Your task to perform on an android device: check storage Image 0: 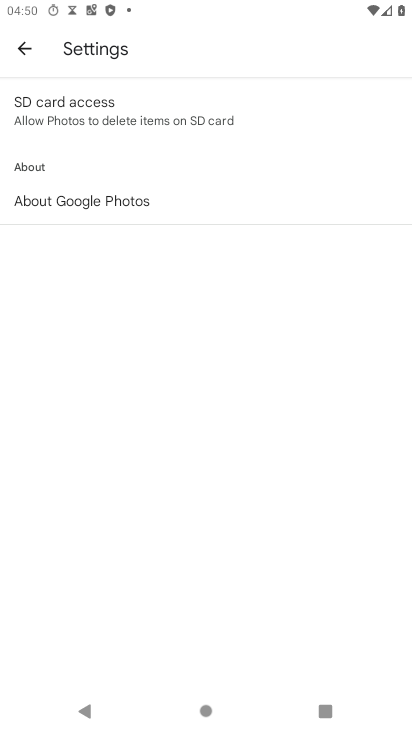
Step 0: press home button
Your task to perform on an android device: check storage Image 1: 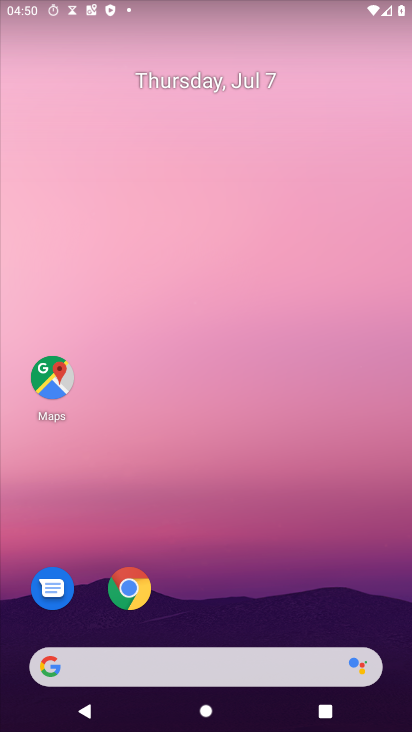
Step 1: drag from (237, 632) to (188, 194)
Your task to perform on an android device: check storage Image 2: 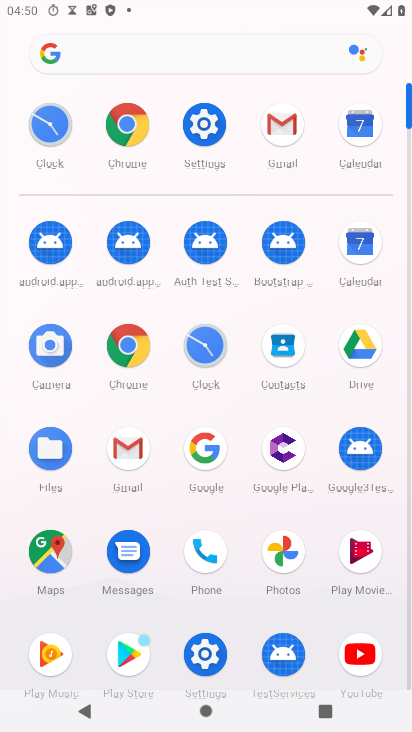
Step 2: click (218, 123)
Your task to perform on an android device: check storage Image 3: 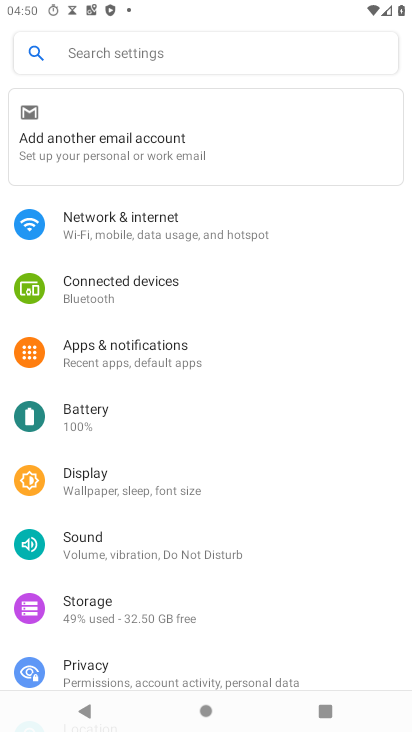
Step 3: drag from (303, 483) to (272, 274)
Your task to perform on an android device: check storage Image 4: 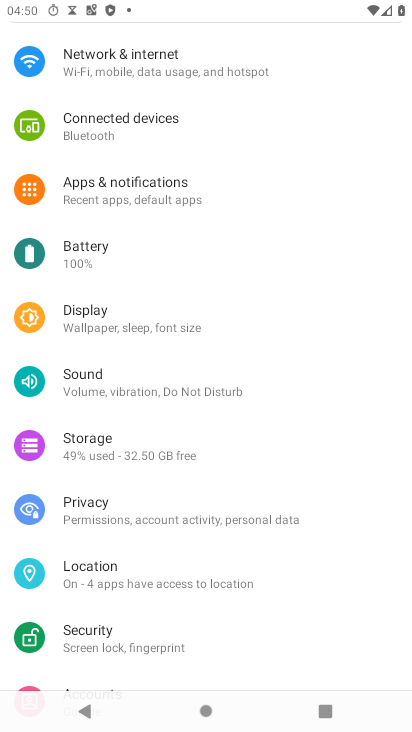
Step 4: click (81, 453)
Your task to perform on an android device: check storage Image 5: 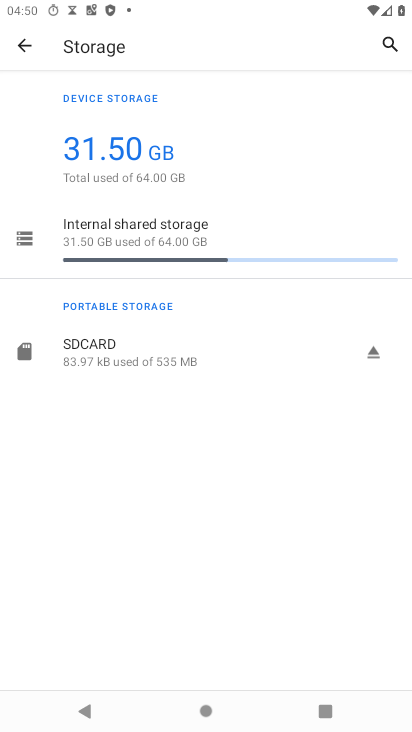
Step 5: task complete